Your task to perform on an android device: Open internet settings Image 0: 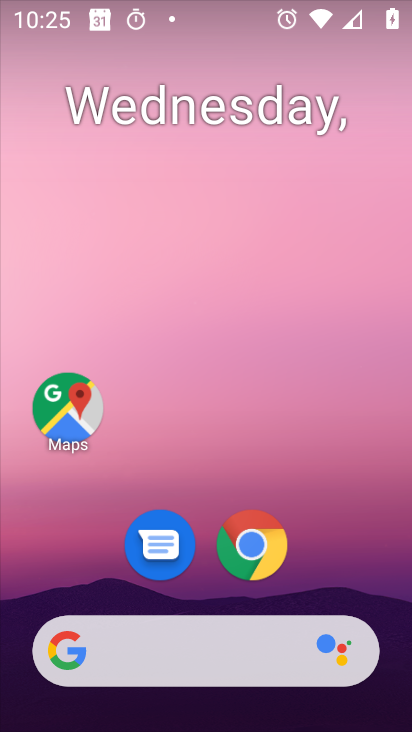
Step 0: press home button
Your task to perform on an android device: Open internet settings Image 1: 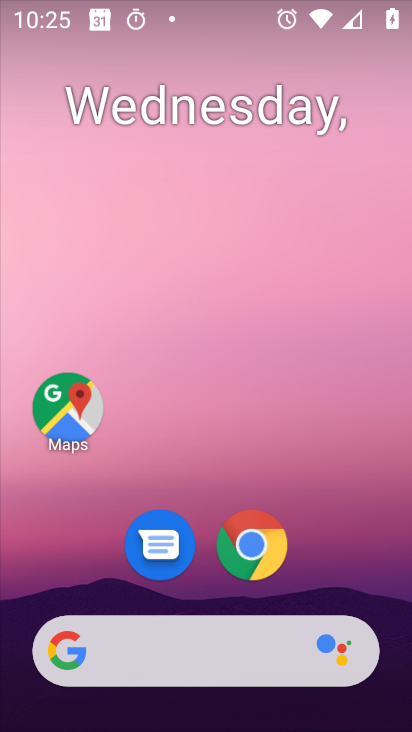
Step 1: drag from (212, 645) to (348, 99)
Your task to perform on an android device: Open internet settings Image 2: 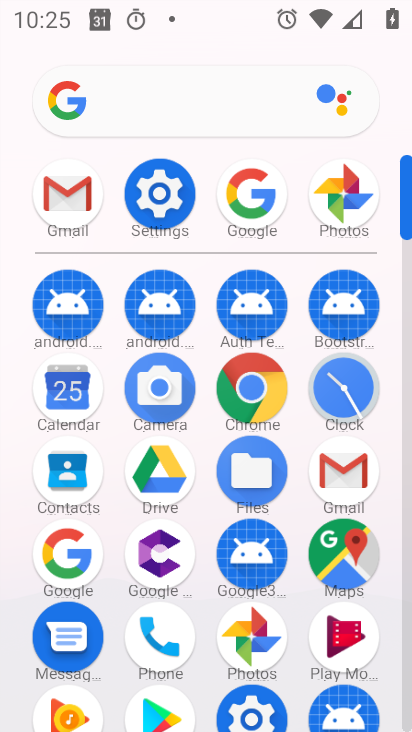
Step 2: click (178, 213)
Your task to perform on an android device: Open internet settings Image 3: 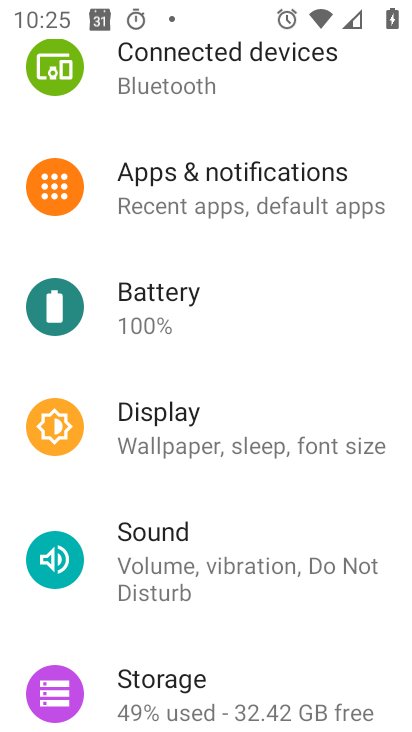
Step 3: drag from (338, 121) to (274, 558)
Your task to perform on an android device: Open internet settings Image 4: 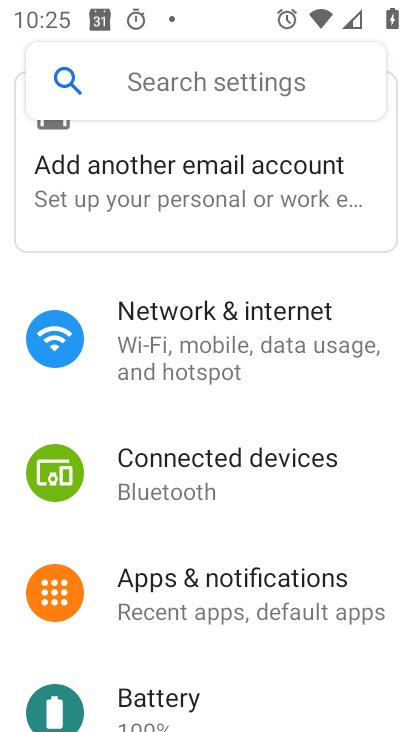
Step 4: click (258, 330)
Your task to perform on an android device: Open internet settings Image 5: 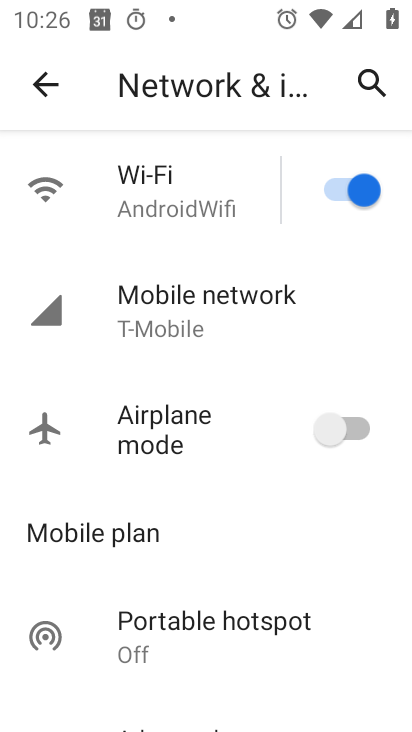
Step 5: task complete